Your task to perform on an android device: Open maps Image 0: 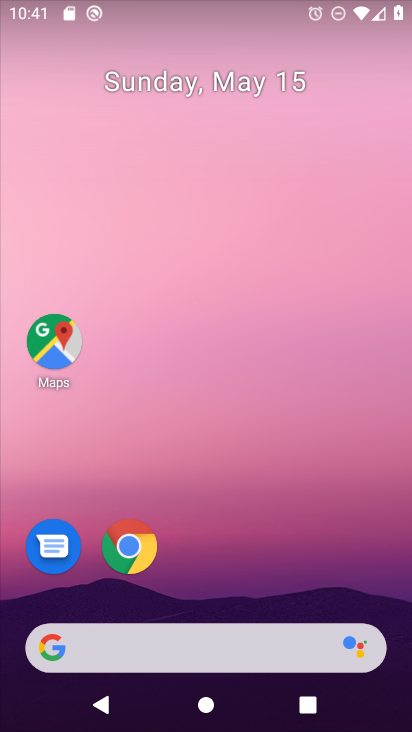
Step 0: click (62, 338)
Your task to perform on an android device: Open maps Image 1: 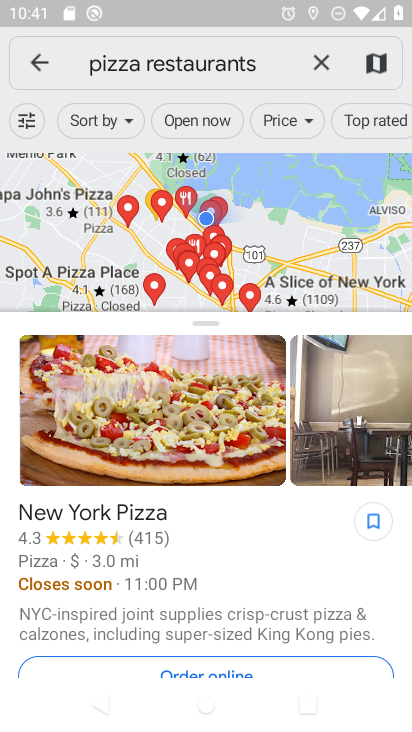
Step 1: task complete